Your task to perform on an android device: search for starred emails in the gmail app Image 0: 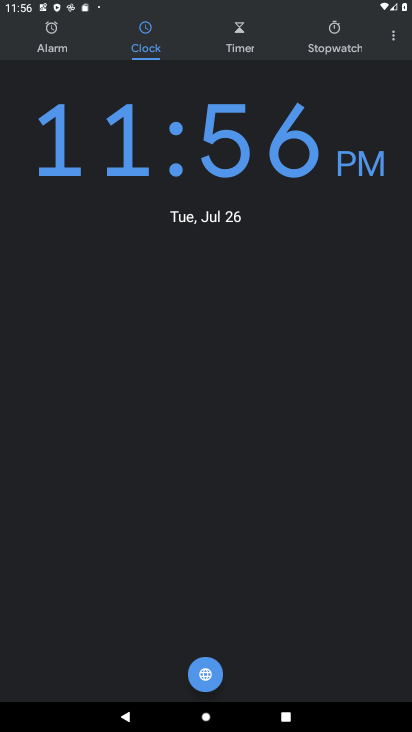
Step 0: press home button
Your task to perform on an android device: search for starred emails in the gmail app Image 1: 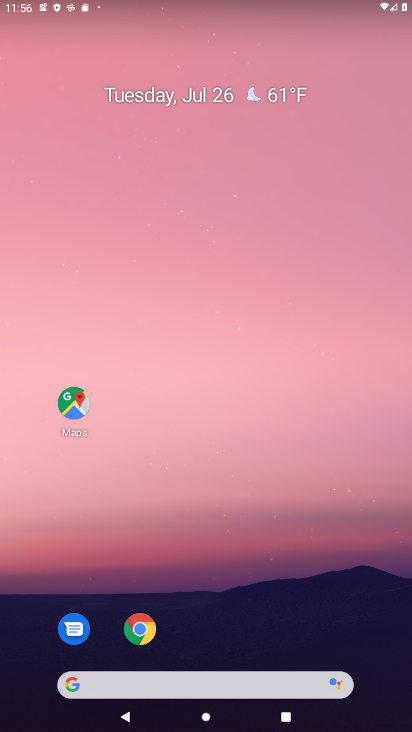
Step 1: drag from (256, 636) to (278, 251)
Your task to perform on an android device: search for starred emails in the gmail app Image 2: 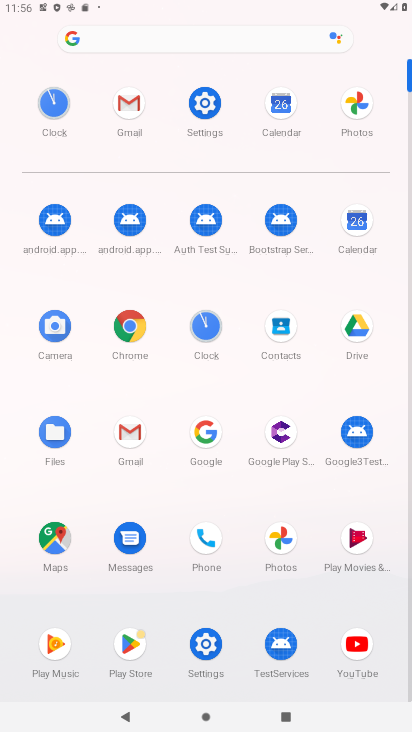
Step 2: click (133, 134)
Your task to perform on an android device: search for starred emails in the gmail app Image 3: 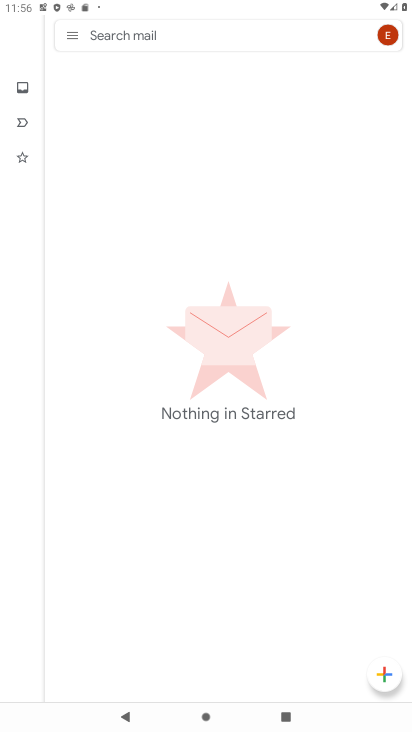
Step 3: task complete